Your task to perform on an android device: What's the weather? Image 0: 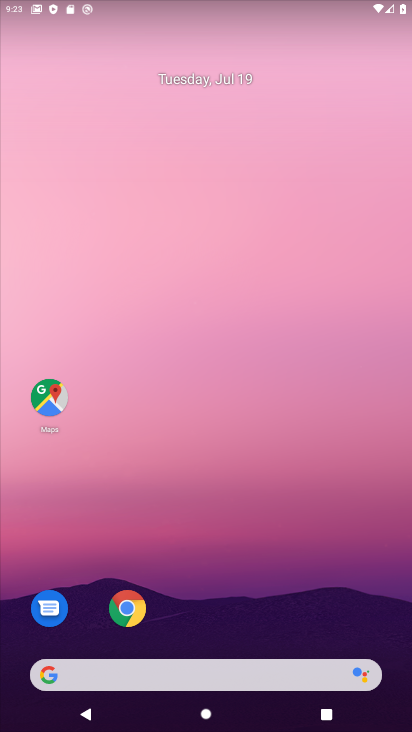
Step 0: drag from (291, 666) to (199, 132)
Your task to perform on an android device: What's the weather? Image 1: 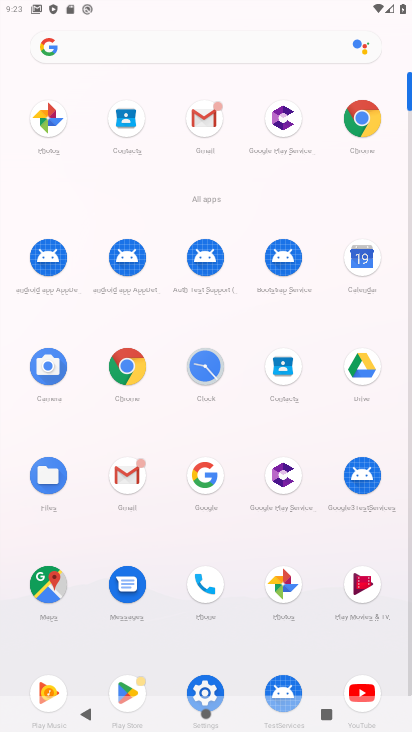
Step 1: click (363, 123)
Your task to perform on an android device: What's the weather? Image 2: 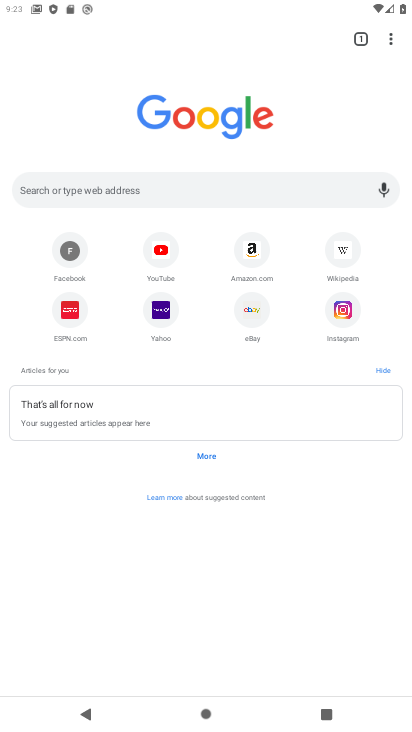
Step 2: click (285, 192)
Your task to perform on an android device: What's the weather? Image 3: 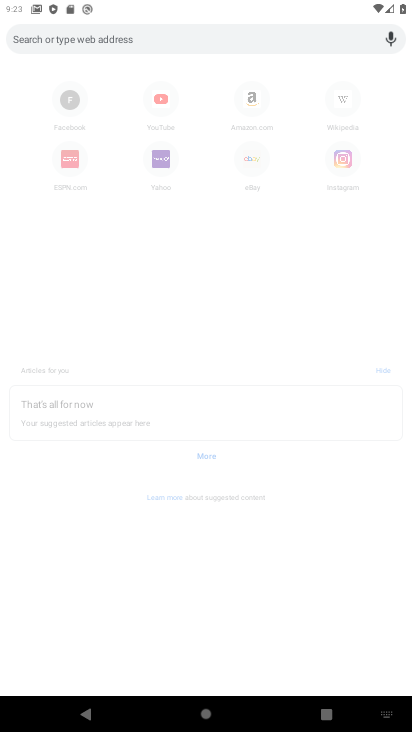
Step 3: type "weather"
Your task to perform on an android device: What's the weather? Image 4: 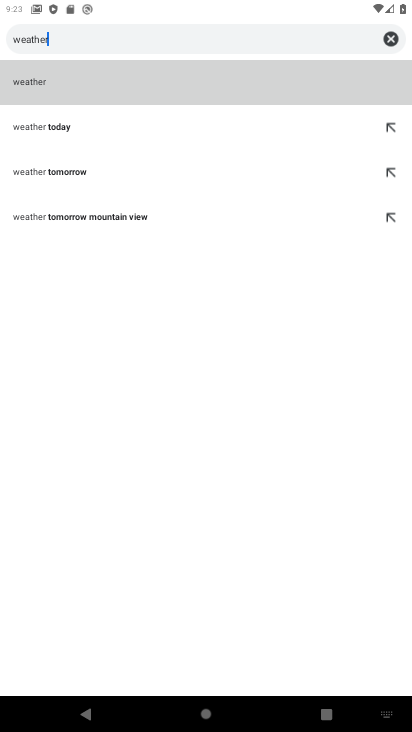
Step 4: click (67, 86)
Your task to perform on an android device: What's the weather? Image 5: 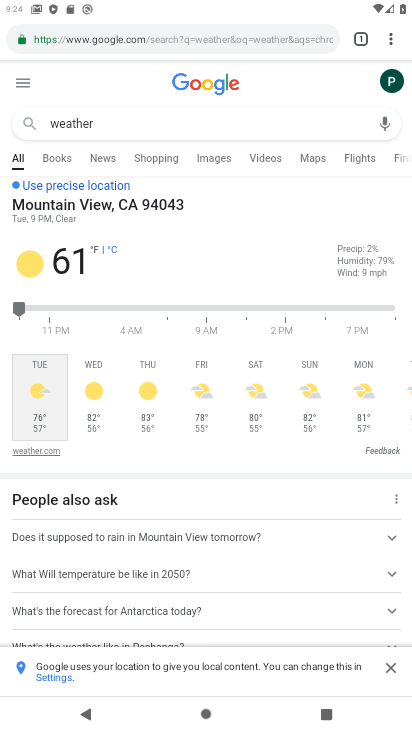
Step 5: task complete